Your task to perform on an android device: Go to display settings Image 0: 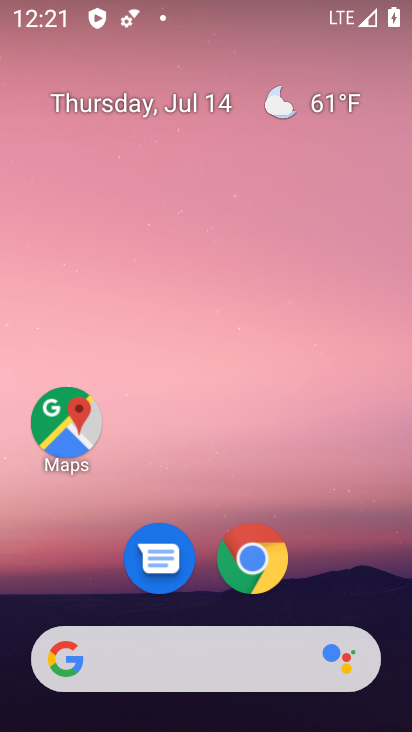
Step 0: drag from (190, 588) to (223, 5)
Your task to perform on an android device: Go to display settings Image 1: 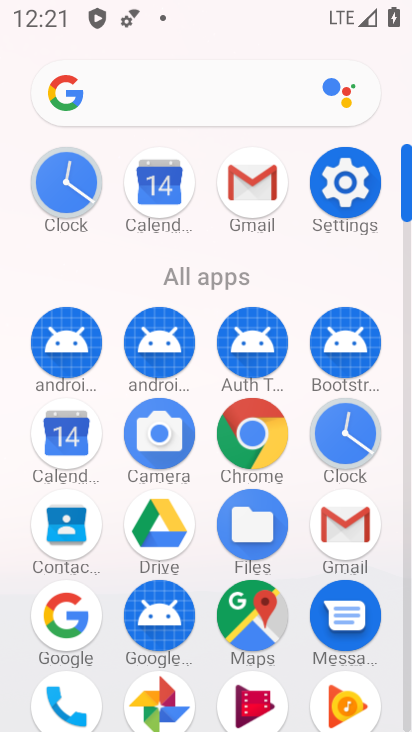
Step 1: click (347, 161)
Your task to perform on an android device: Go to display settings Image 2: 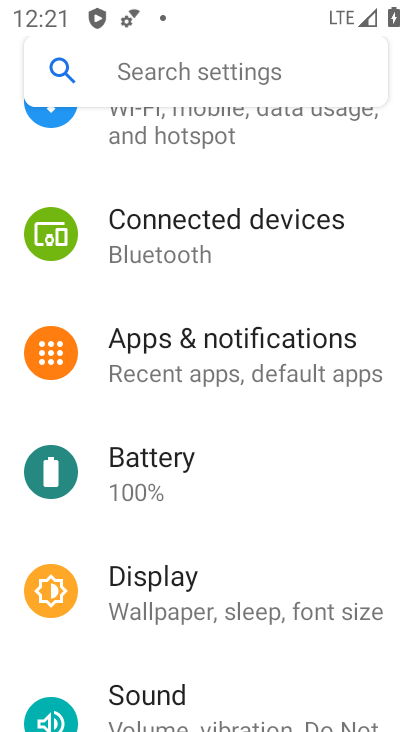
Step 2: click (180, 579)
Your task to perform on an android device: Go to display settings Image 3: 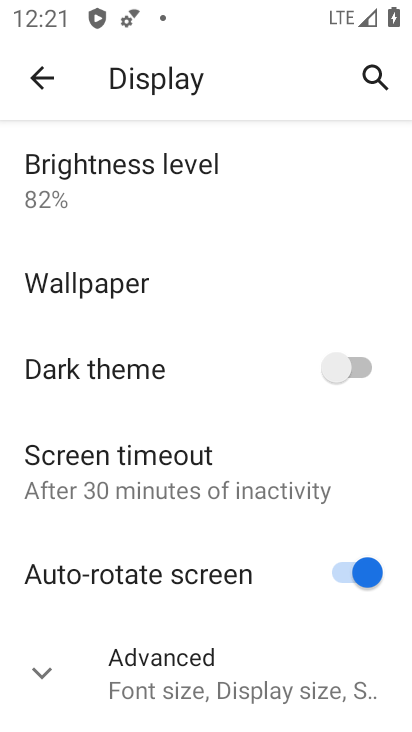
Step 3: task complete